Your task to perform on an android device: Go to wifi settings Image 0: 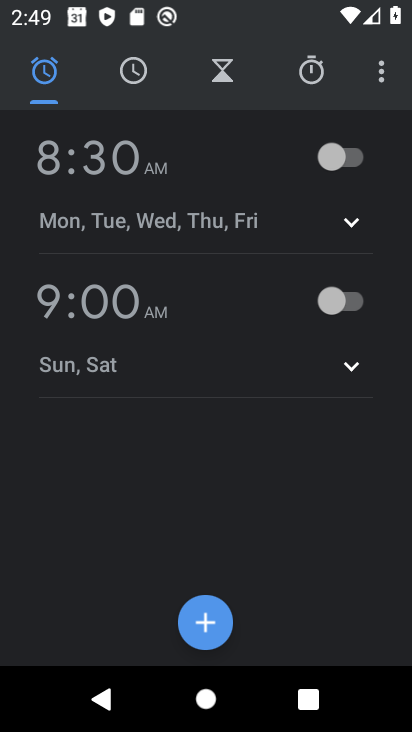
Step 0: press home button
Your task to perform on an android device: Go to wifi settings Image 1: 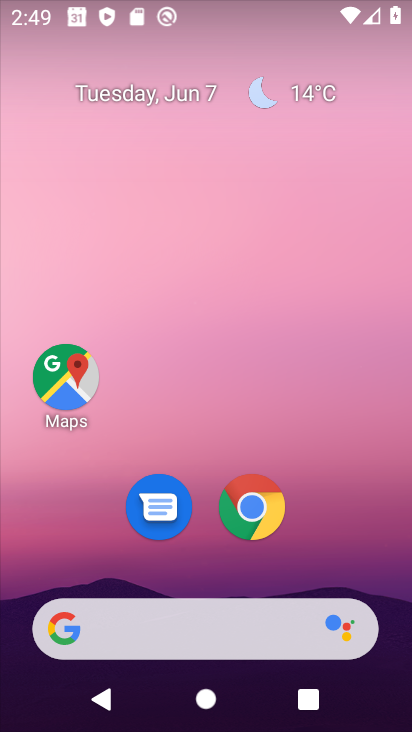
Step 1: drag from (339, 468) to (330, 137)
Your task to perform on an android device: Go to wifi settings Image 2: 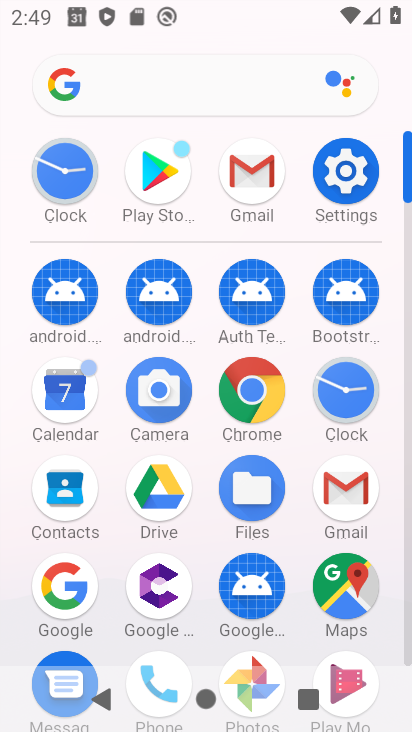
Step 2: click (351, 162)
Your task to perform on an android device: Go to wifi settings Image 3: 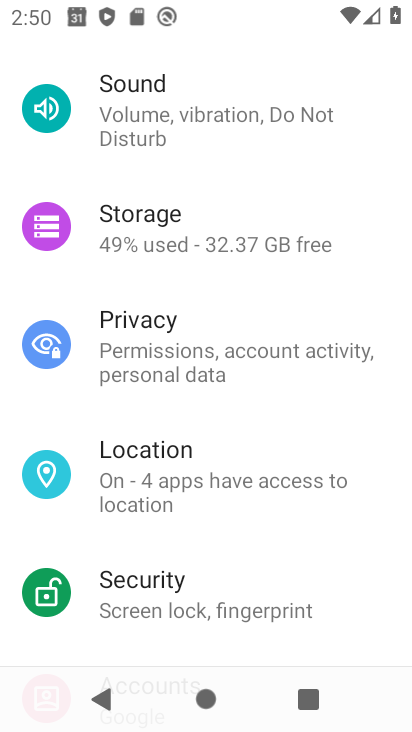
Step 3: drag from (234, 156) to (231, 551)
Your task to perform on an android device: Go to wifi settings Image 4: 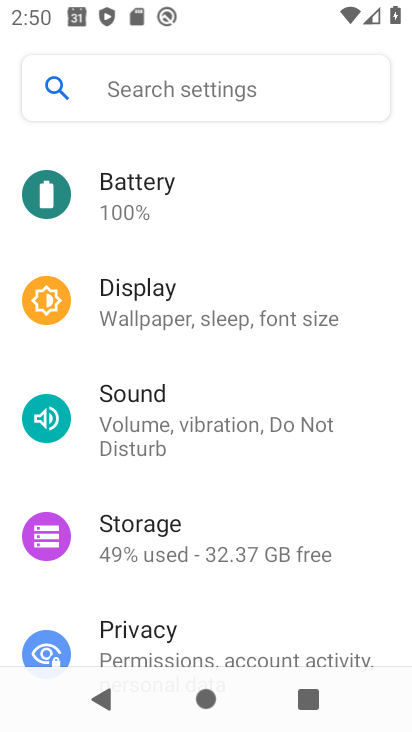
Step 4: drag from (222, 249) to (206, 598)
Your task to perform on an android device: Go to wifi settings Image 5: 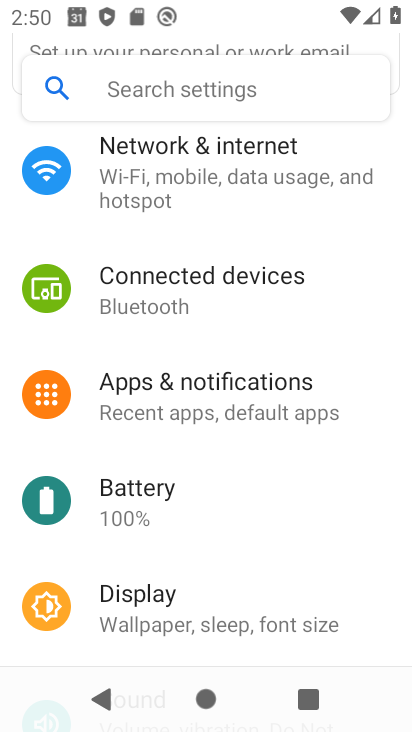
Step 5: click (206, 144)
Your task to perform on an android device: Go to wifi settings Image 6: 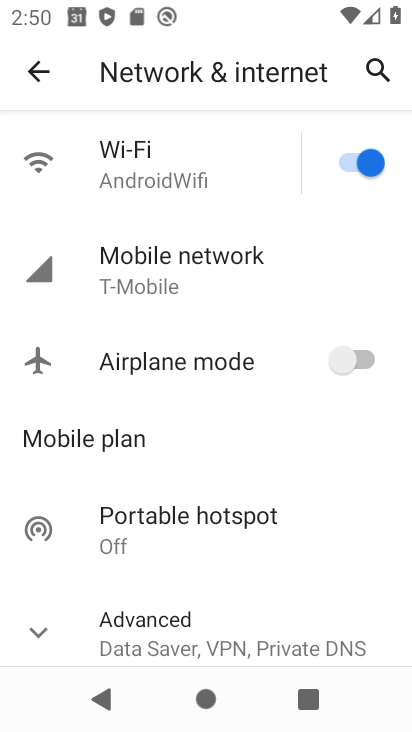
Step 6: click (190, 165)
Your task to perform on an android device: Go to wifi settings Image 7: 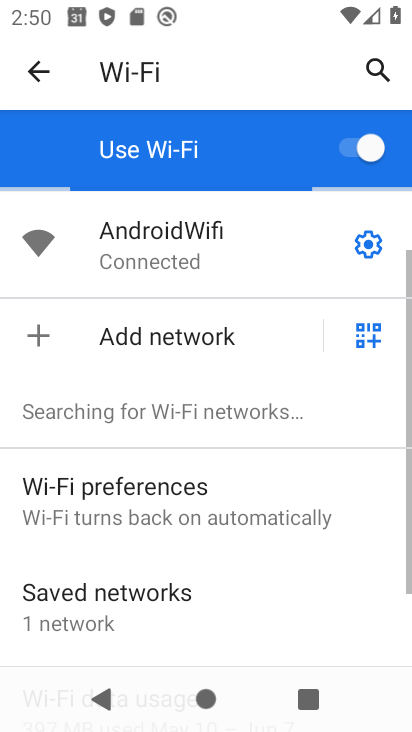
Step 7: click (374, 233)
Your task to perform on an android device: Go to wifi settings Image 8: 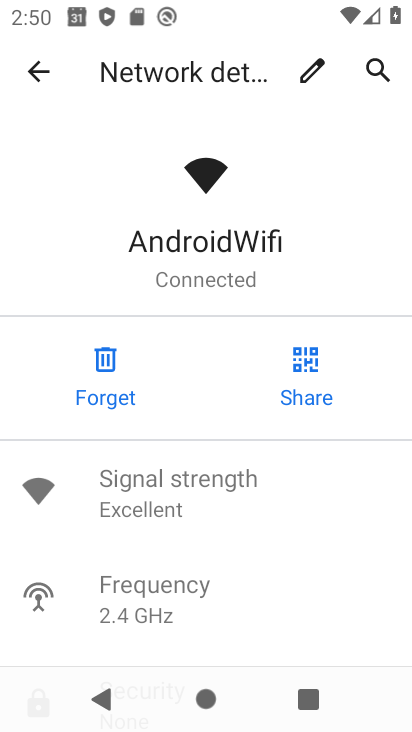
Step 8: task complete